Your task to perform on an android device: Show me recent news Image 0: 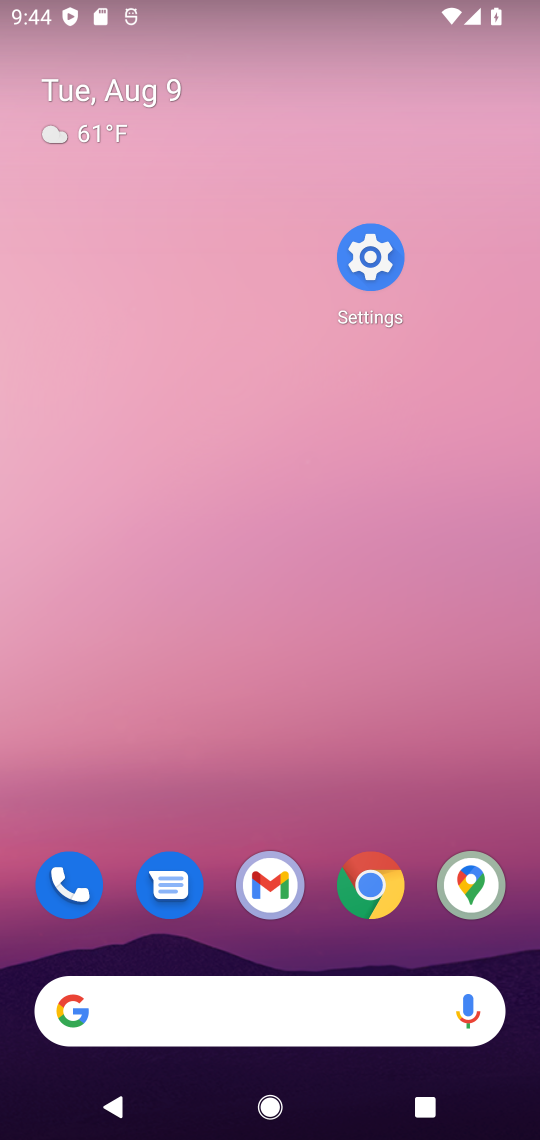
Step 0: press home button
Your task to perform on an android device: Show me recent news Image 1: 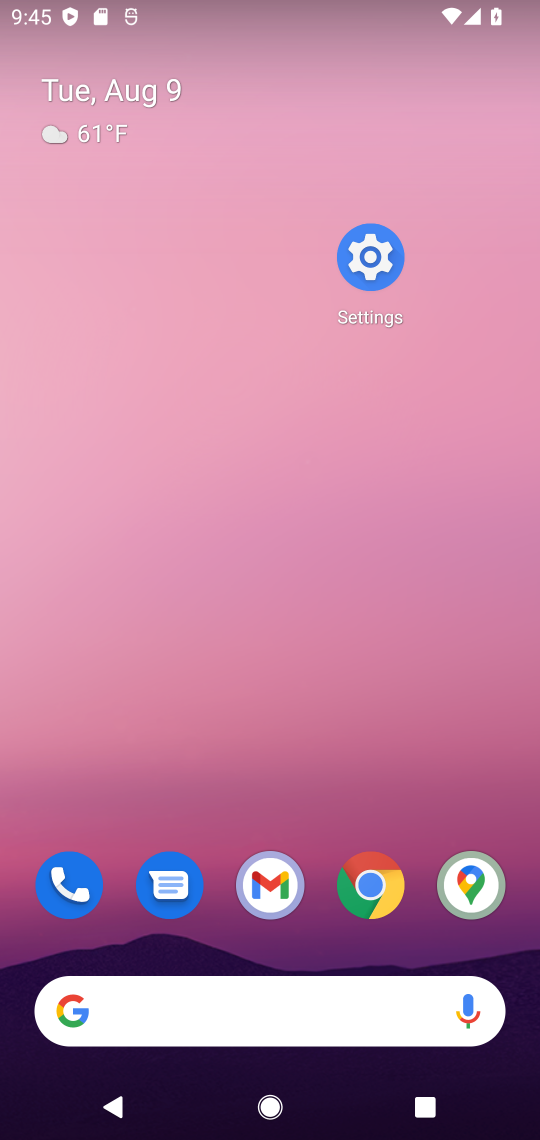
Step 1: task complete